Your task to perform on an android device: Where can I buy a nice beach umbrella? Image 0: 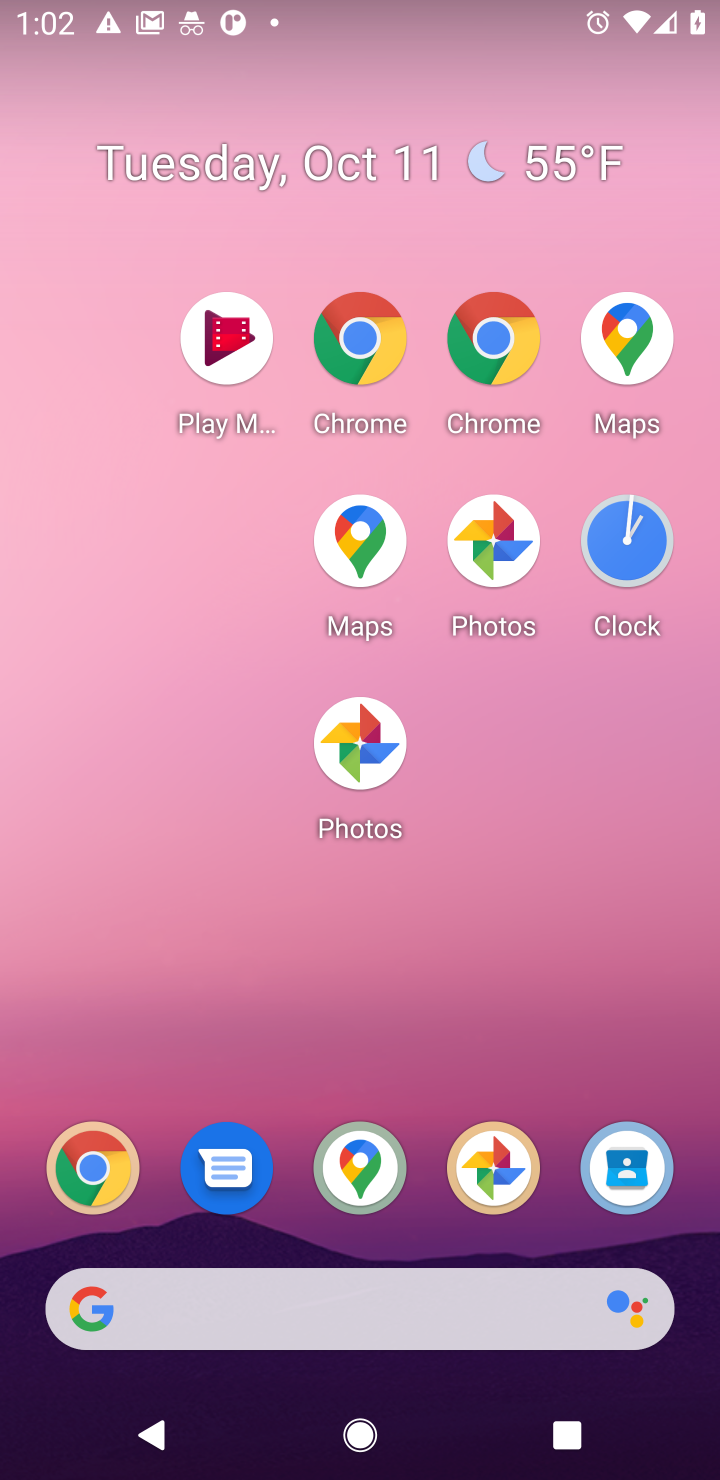
Step 0: click (482, 864)
Your task to perform on an android device: Where can I buy a nice beach umbrella? Image 1: 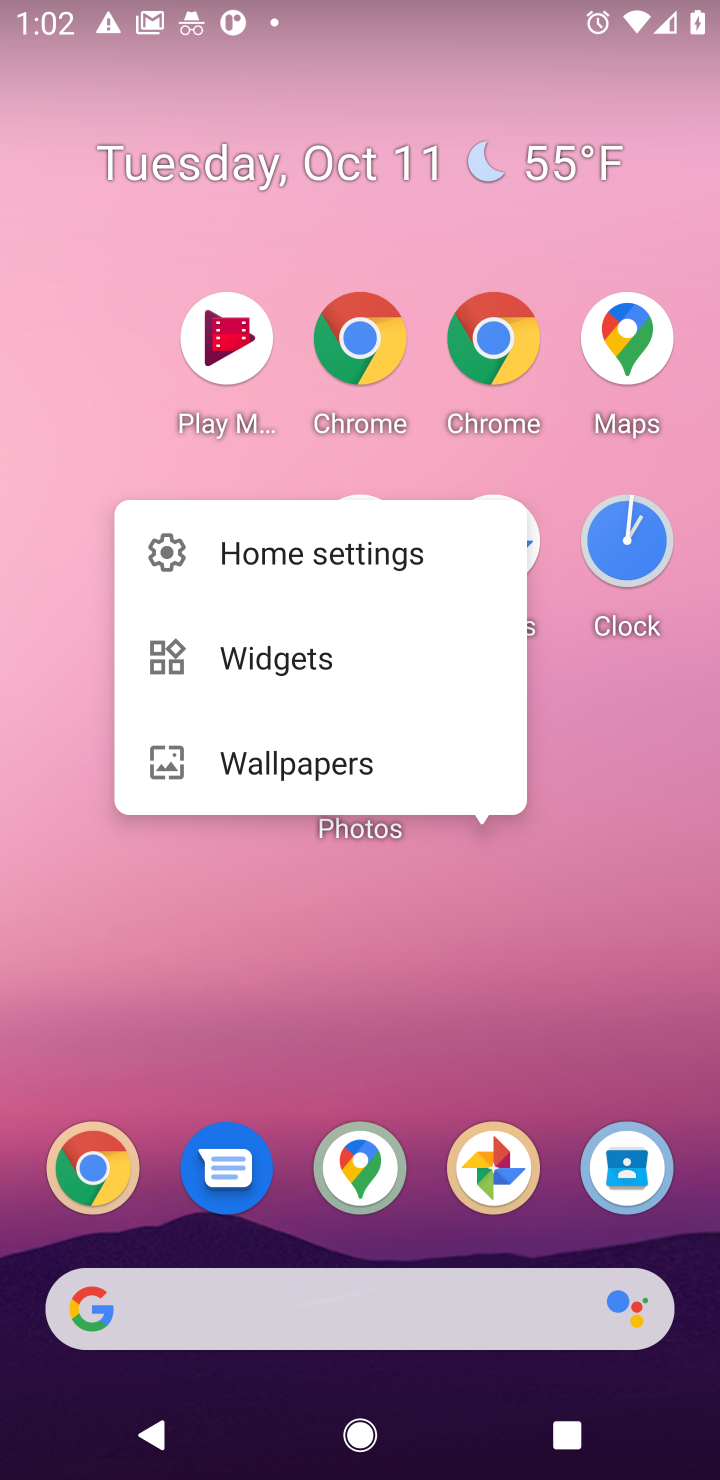
Step 1: drag from (201, 1283) to (480, 862)
Your task to perform on an android device: Where can I buy a nice beach umbrella? Image 2: 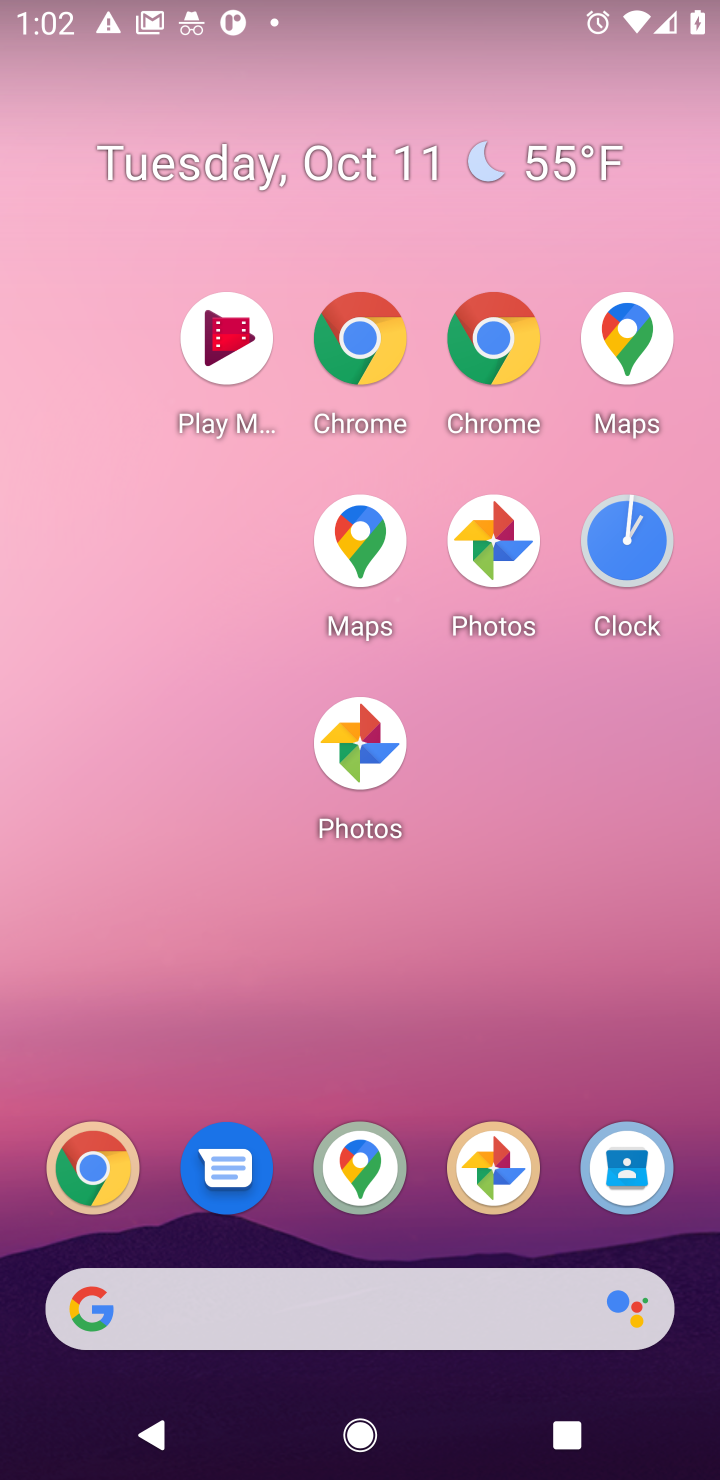
Step 2: click (480, 890)
Your task to perform on an android device: Where can I buy a nice beach umbrella? Image 3: 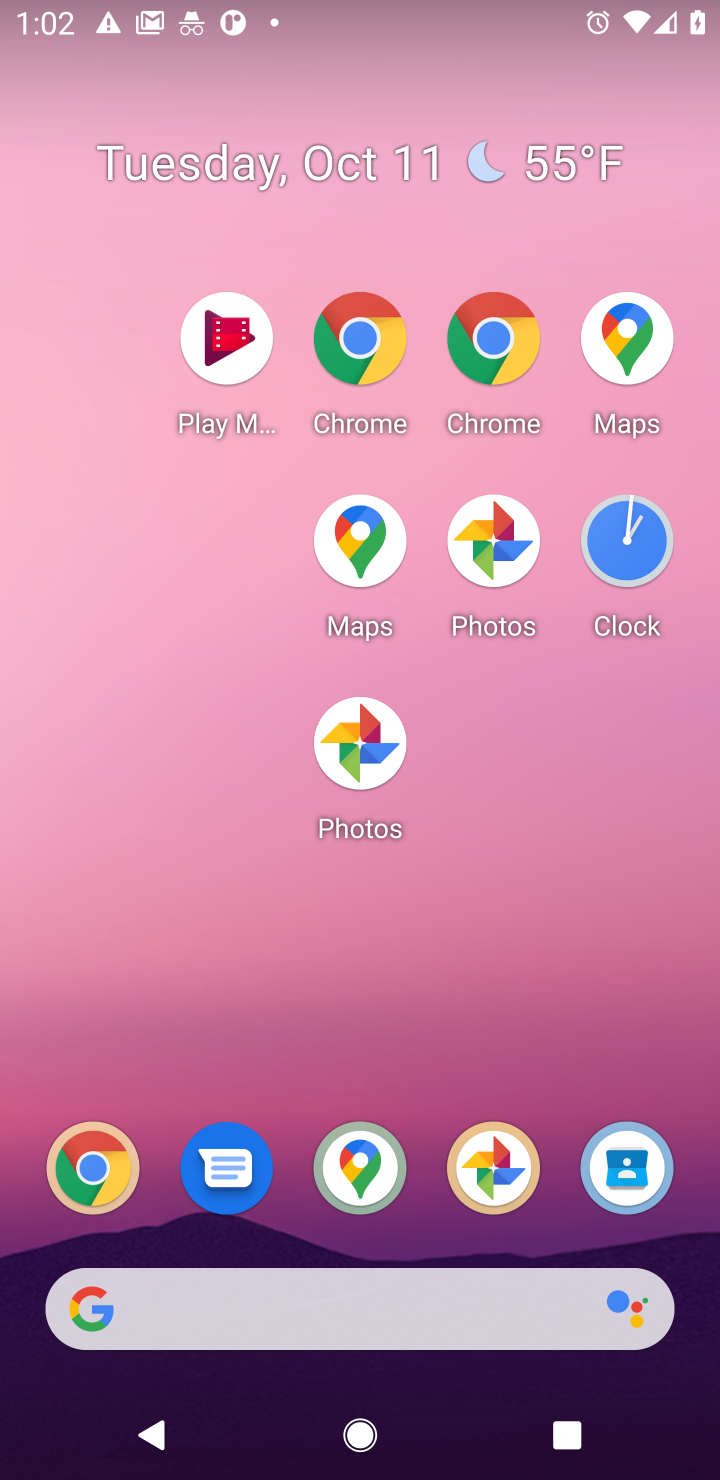
Step 3: drag from (461, 867) to (550, 210)
Your task to perform on an android device: Where can I buy a nice beach umbrella? Image 4: 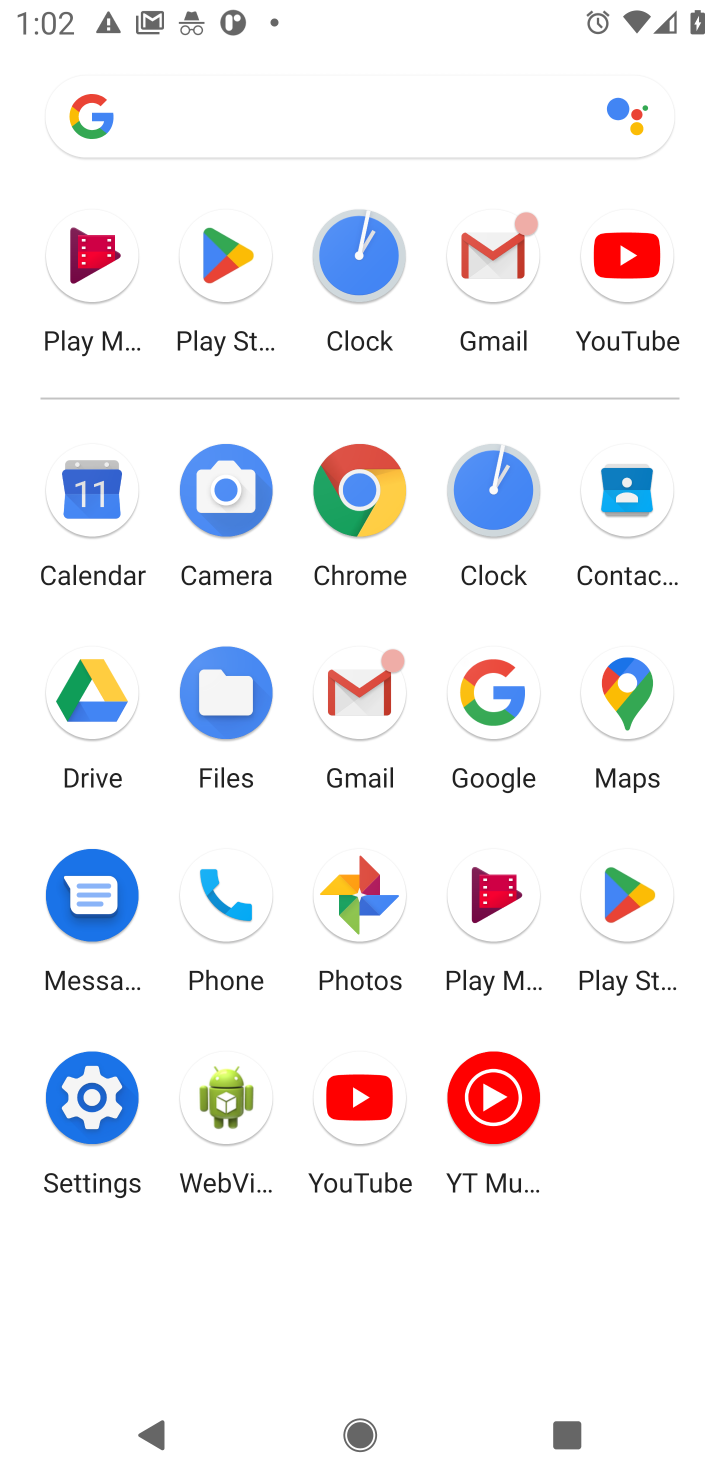
Step 4: click (499, 697)
Your task to perform on an android device: Where can I buy a nice beach umbrella? Image 5: 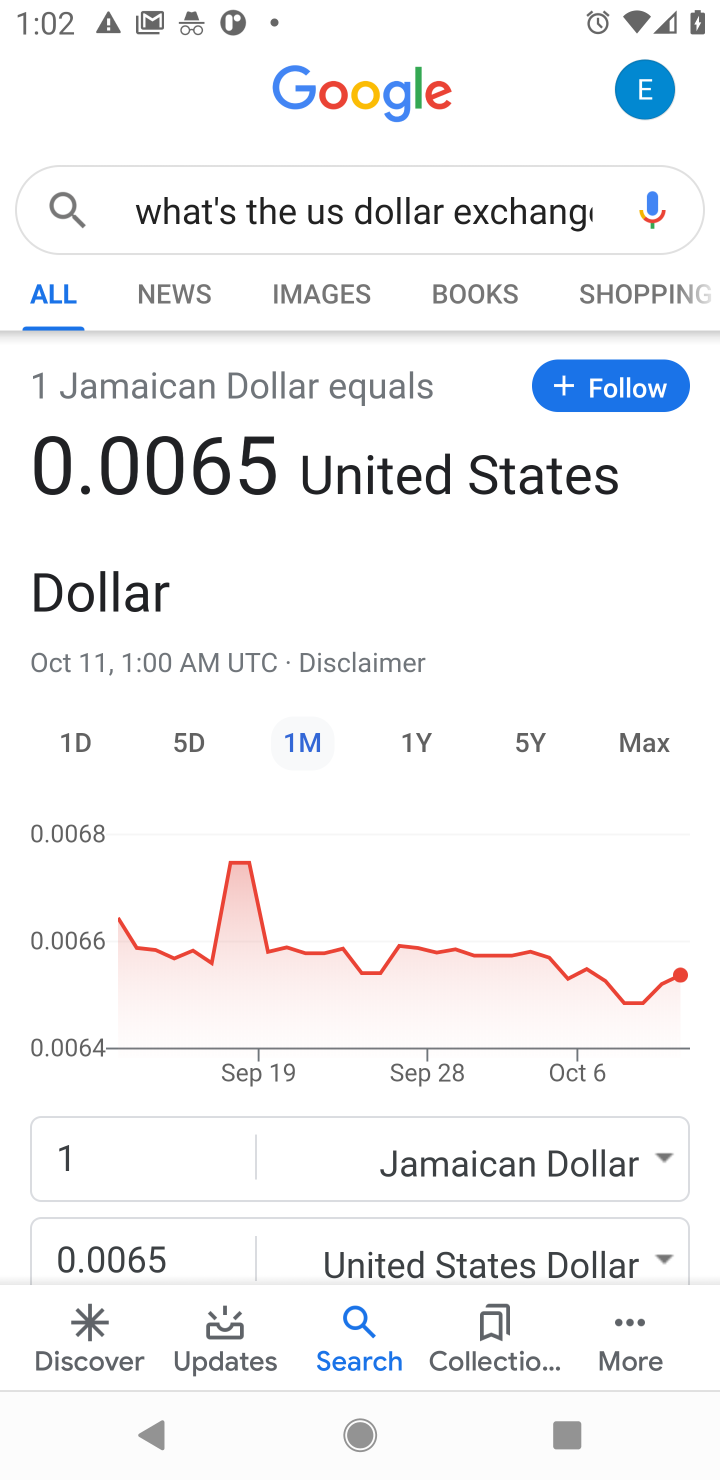
Step 5: click (492, 215)
Your task to perform on an android device: Where can I buy a nice beach umbrella? Image 6: 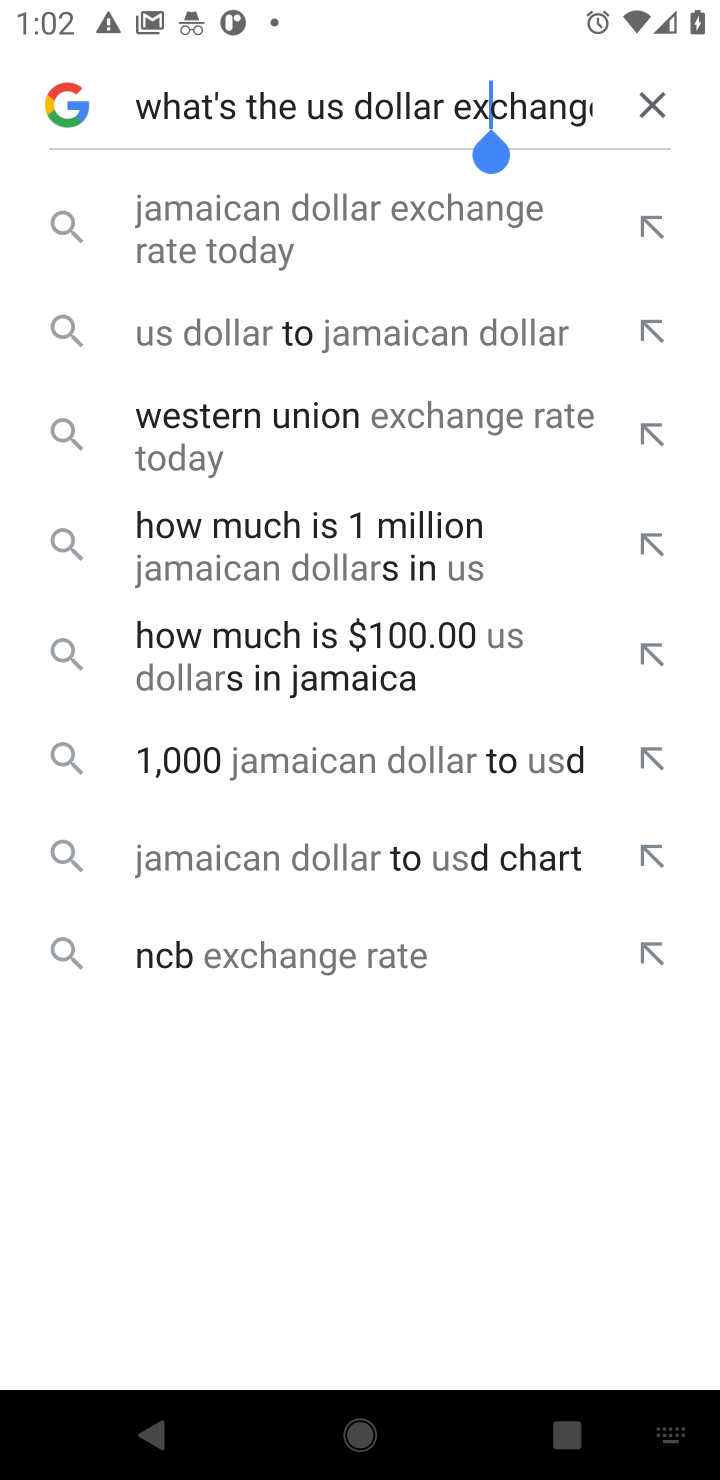
Step 6: click (646, 83)
Your task to perform on an android device: Where can I buy a nice beach umbrella? Image 7: 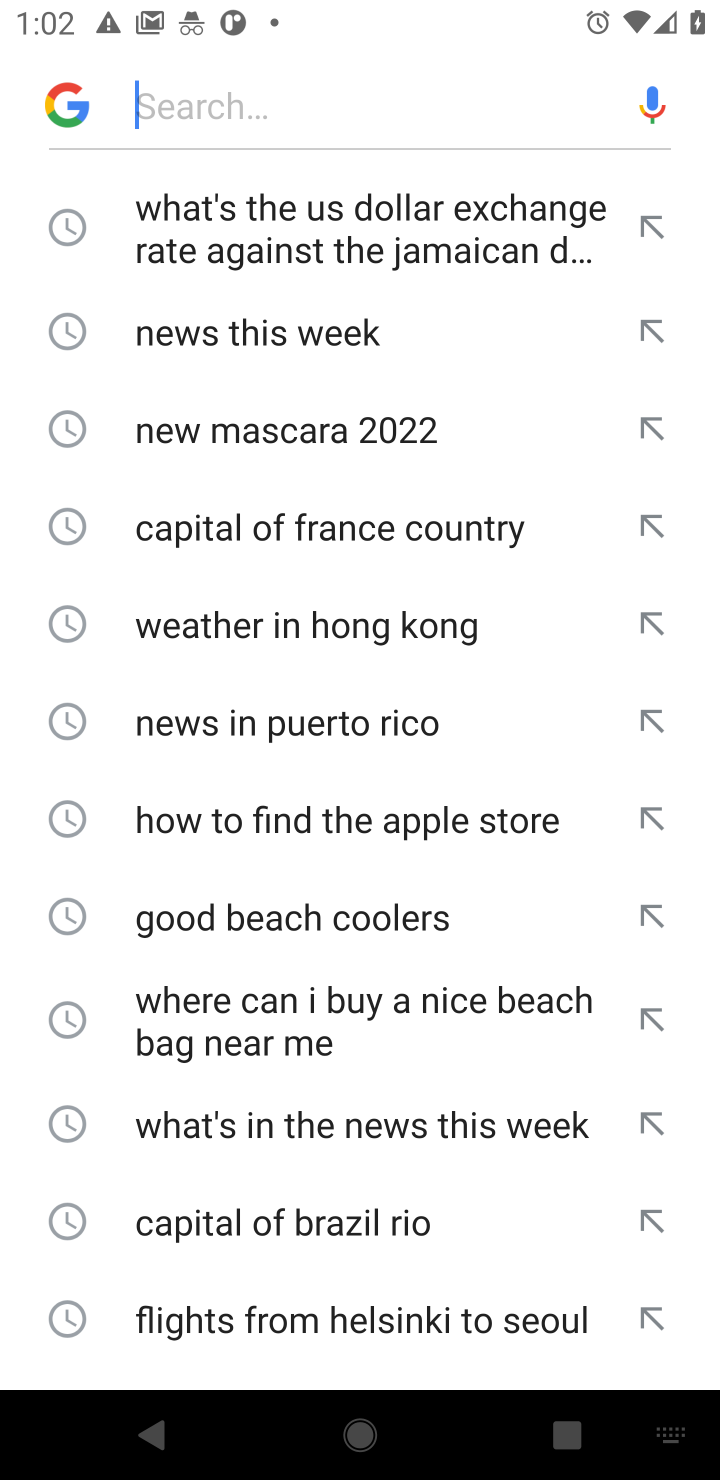
Step 7: type "buy a nice beach umbrella"
Your task to perform on an android device: Where can I buy a nice beach umbrella? Image 8: 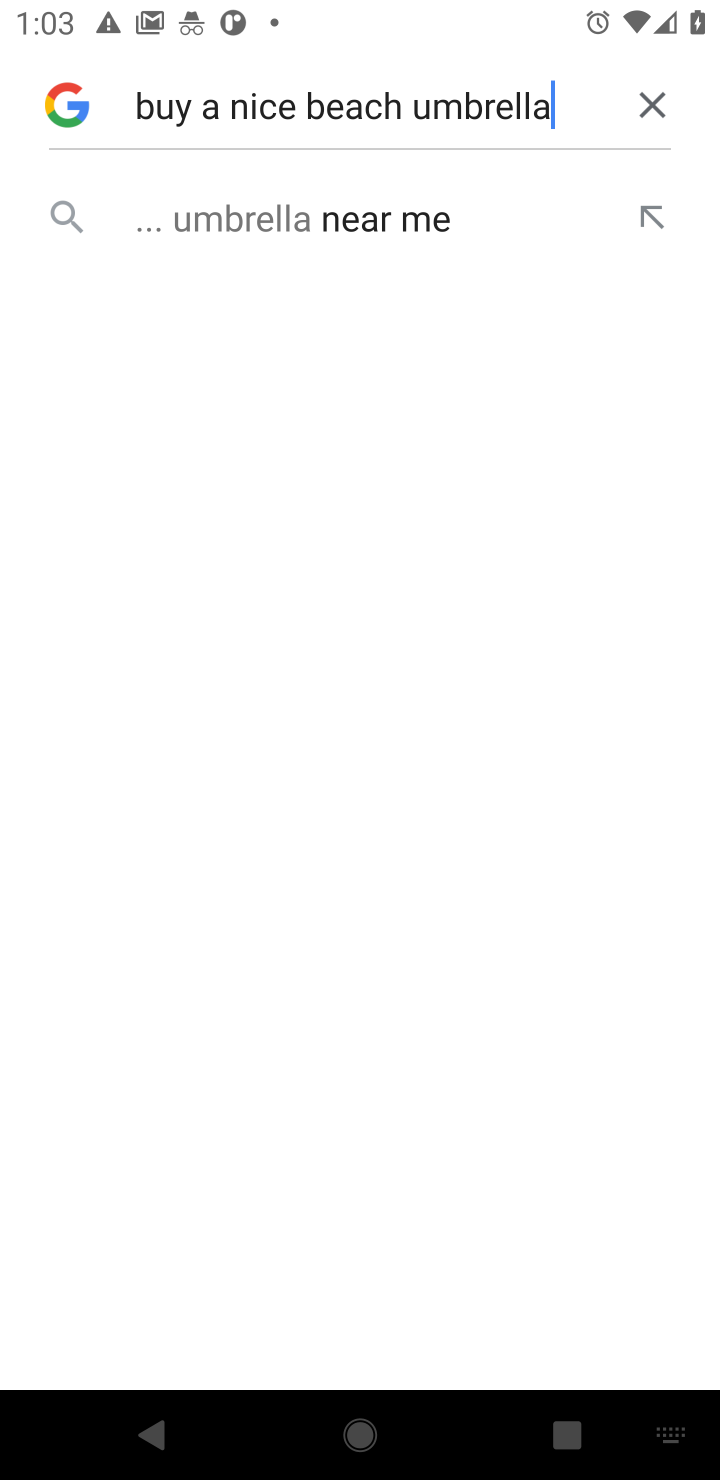
Step 8: click (438, 231)
Your task to perform on an android device: Where can I buy a nice beach umbrella? Image 9: 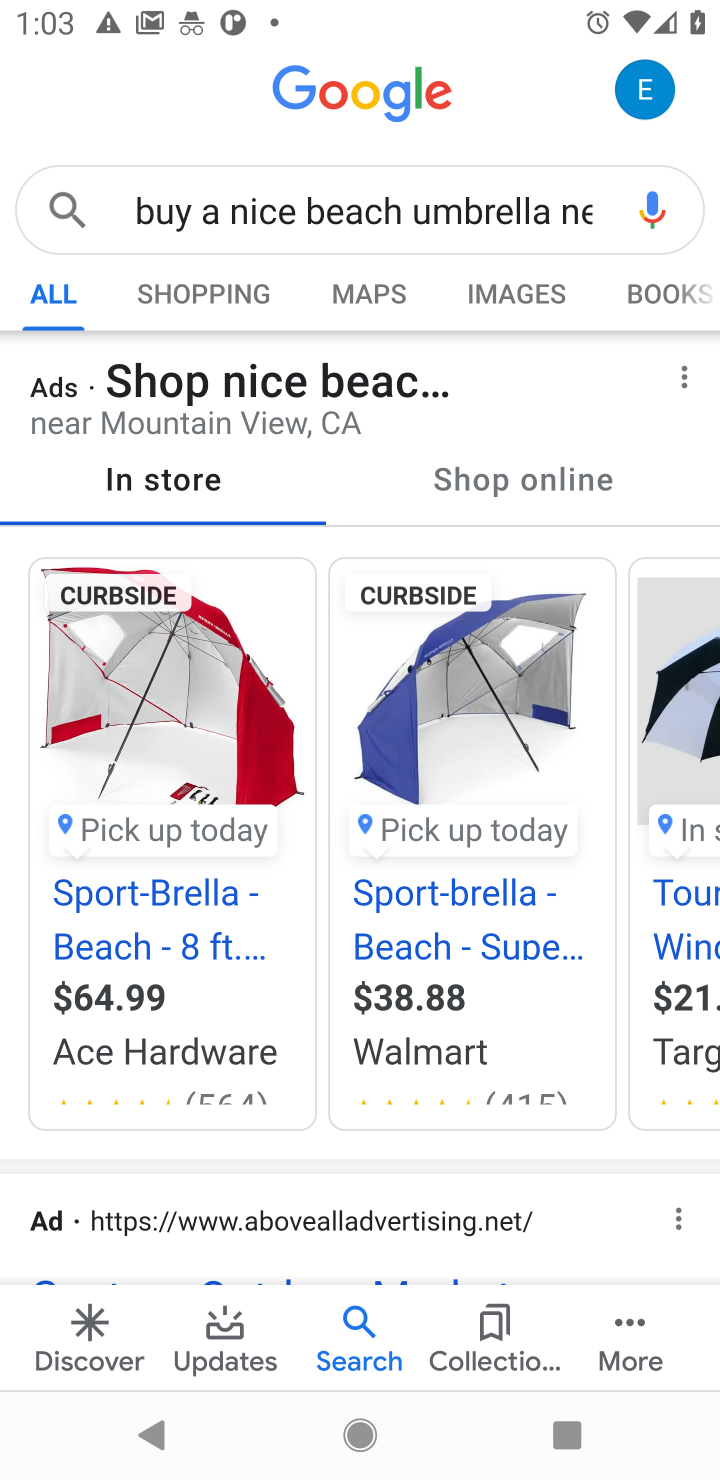
Step 9: click (234, 290)
Your task to perform on an android device: Where can I buy a nice beach umbrella? Image 10: 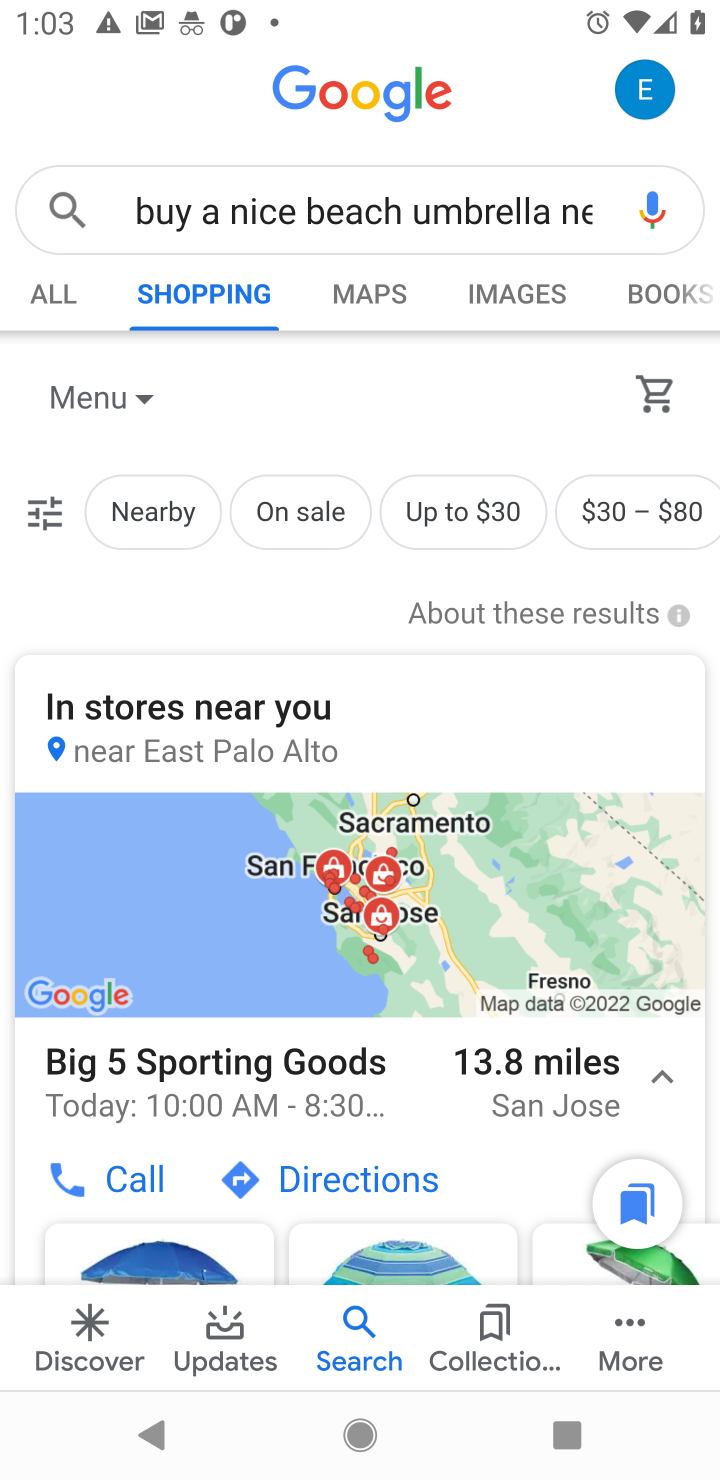
Step 10: task complete